Your task to perform on an android device: snooze an email in the gmail app Image 0: 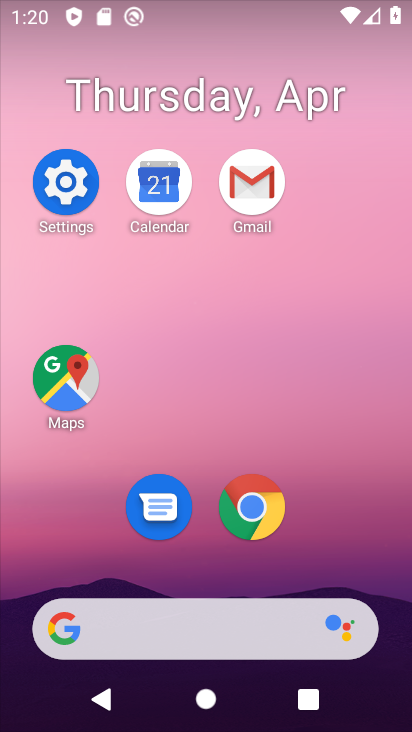
Step 0: click (265, 190)
Your task to perform on an android device: snooze an email in the gmail app Image 1: 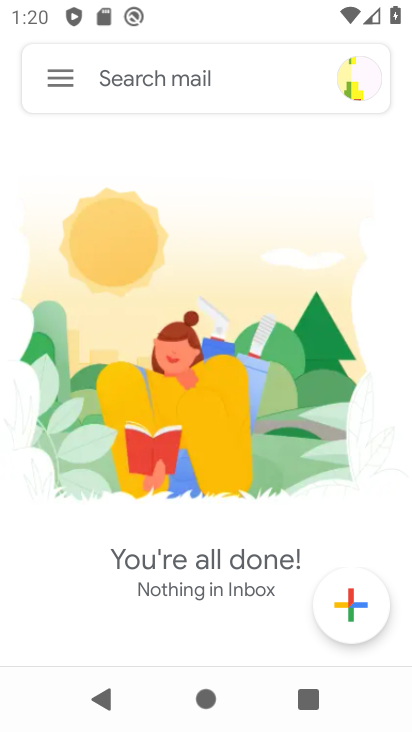
Step 1: click (65, 80)
Your task to perform on an android device: snooze an email in the gmail app Image 2: 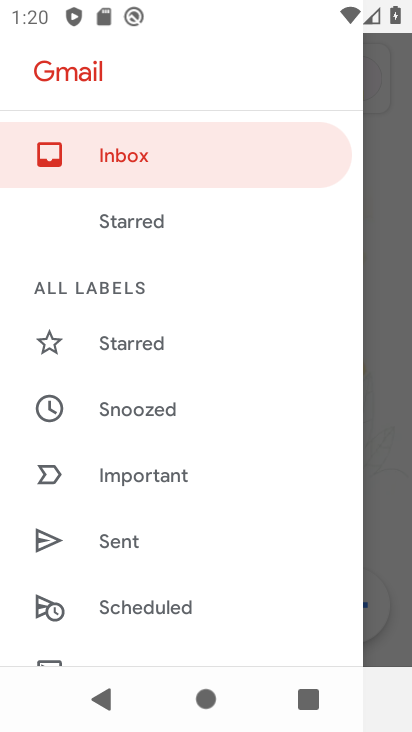
Step 2: drag from (240, 548) to (261, 173)
Your task to perform on an android device: snooze an email in the gmail app Image 3: 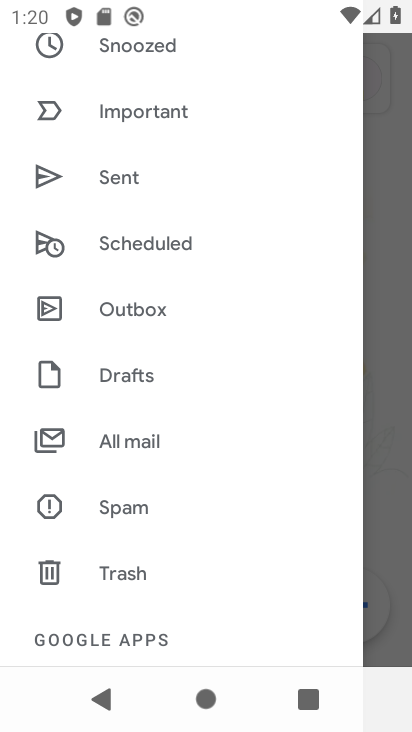
Step 3: click (181, 431)
Your task to perform on an android device: snooze an email in the gmail app Image 4: 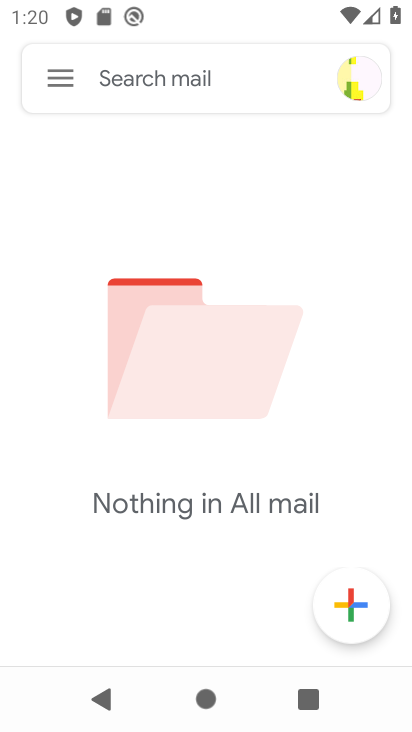
Step 4: task complete